Your task to perform on an android device: toggle translation in the chrome app Image 0: 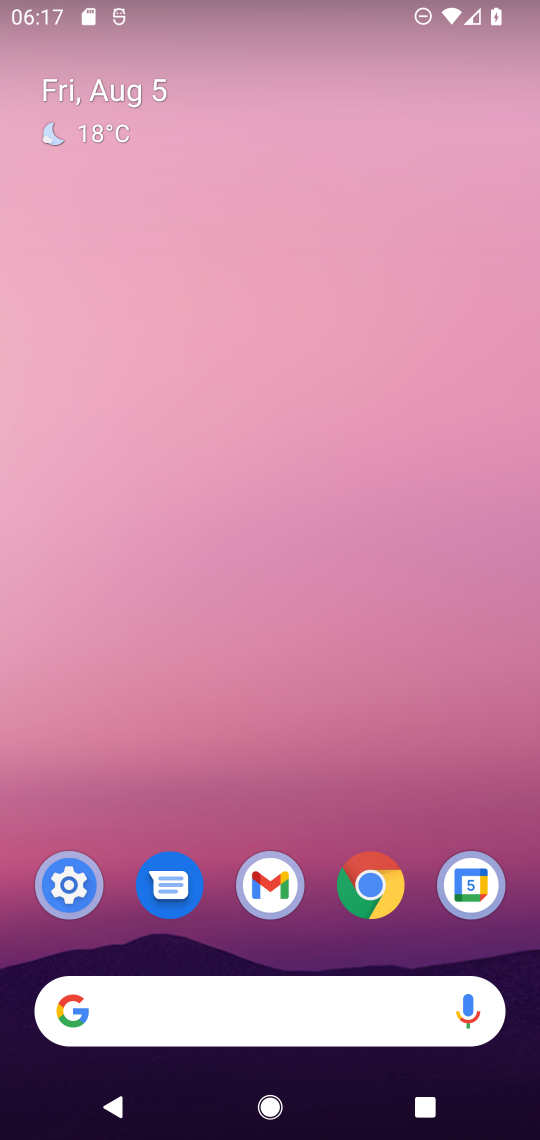
Step 0: click (381, 894)
Your task to perform on an android device: toggle translation in the chrome app Image 1: 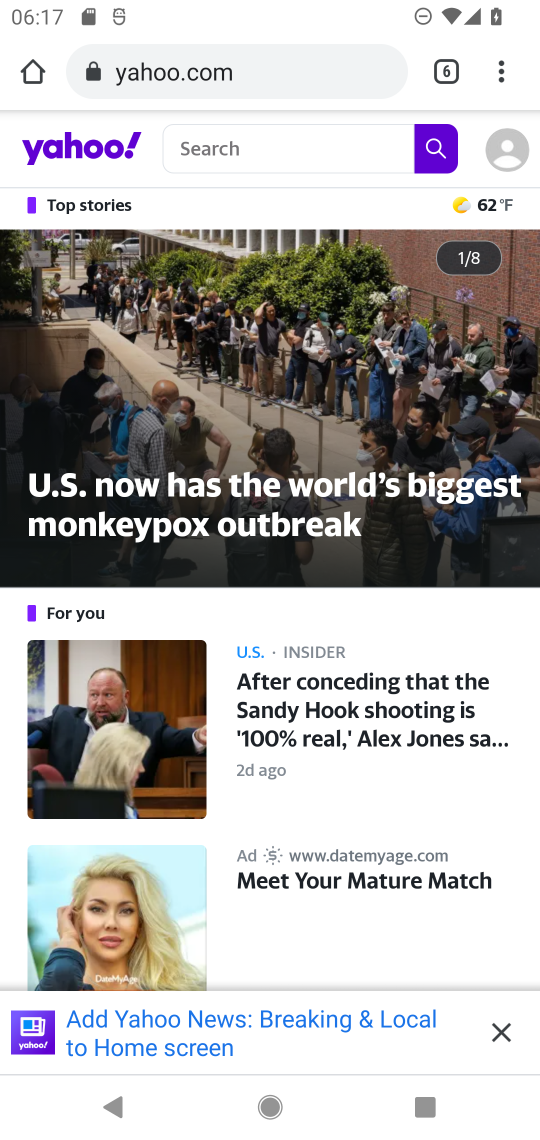
Step 1: click (501, 75)
Your task to perform on an android device: toggle translation in the chrome app Image 2: 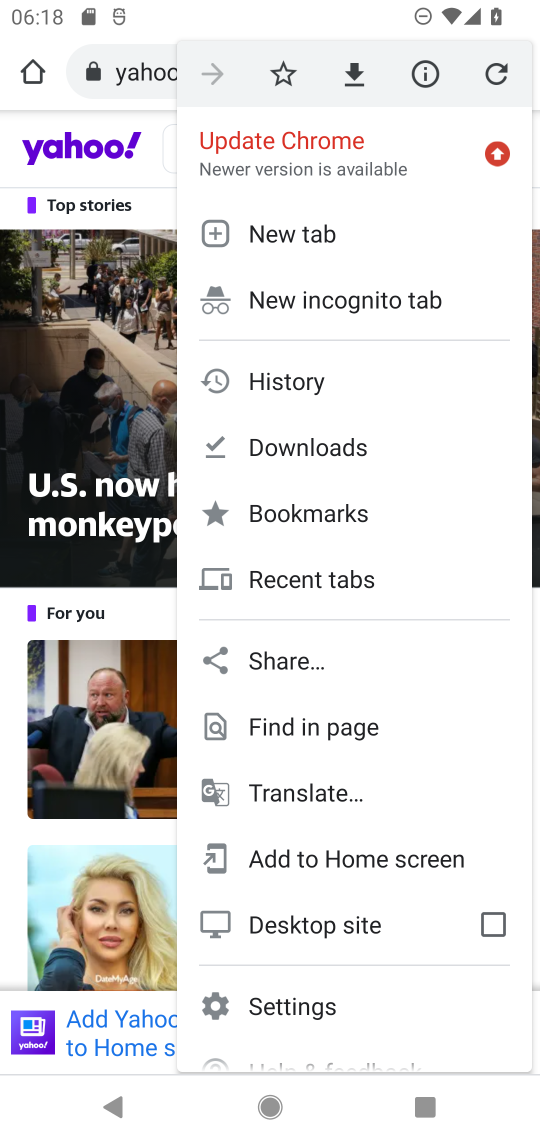
Step 2: click (274, 1003)
Your task to perform on an android device: toggle translation in the chrome app Image 3: 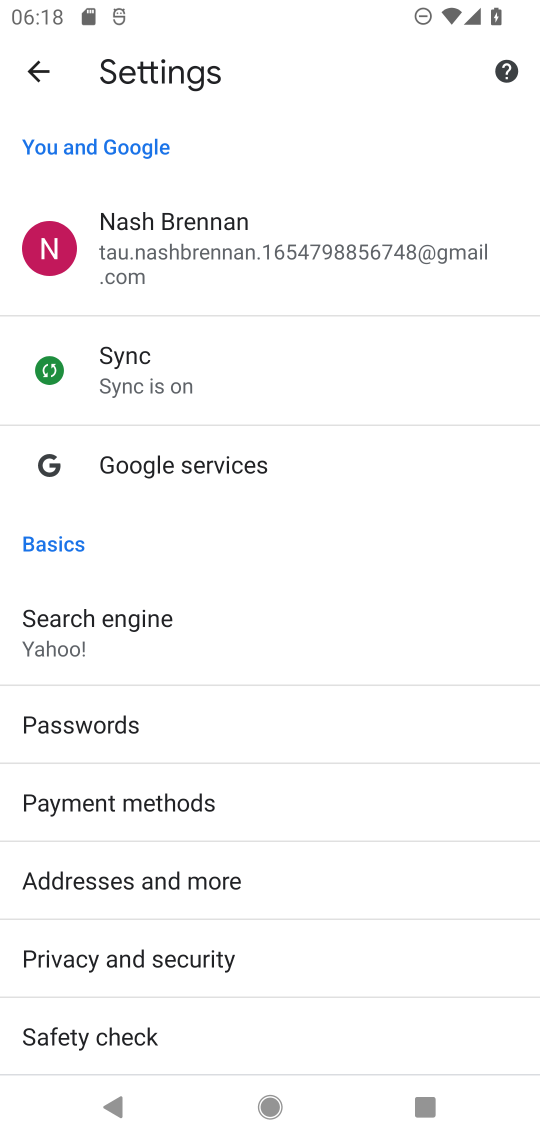
Step 3: drag from (107, 944) to (103, 526)
Your task to perform on an android device: toggle translation in the chrome app Image 4: 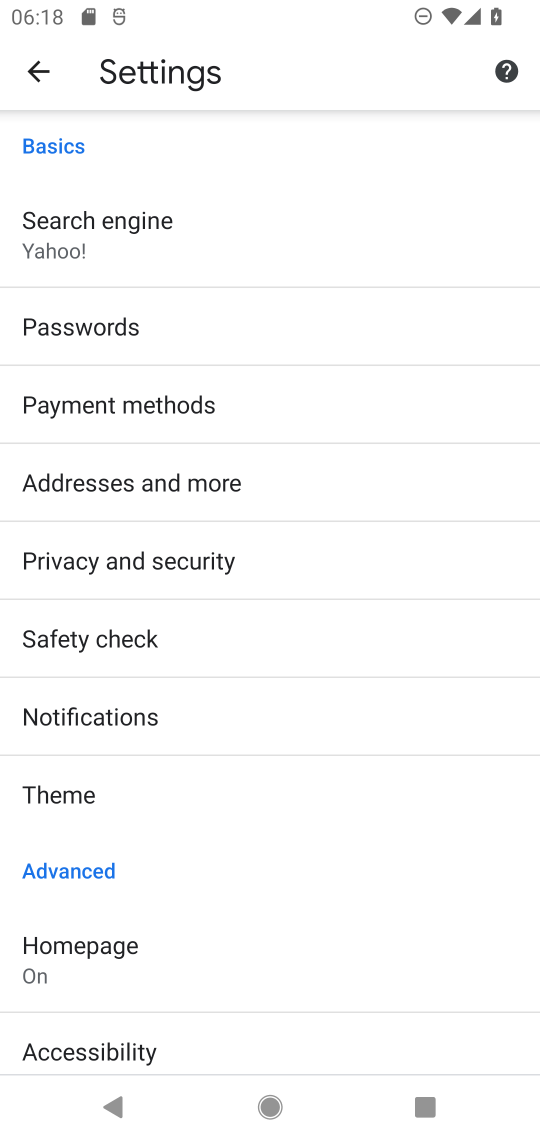
Step 4: drag from (121, 972) to (133, 576)
Your task to perform on an android device: toggle translation in the chrome app Image 5: 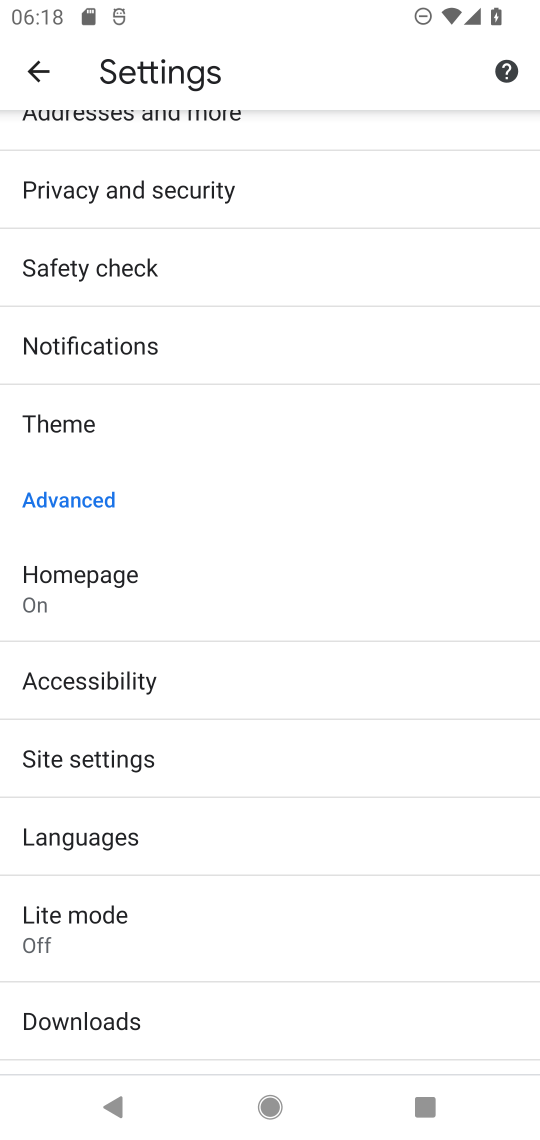
Step 5: click (72, 839)
Your task to perform on an android device: toggle translation in the chrome app Image 6: 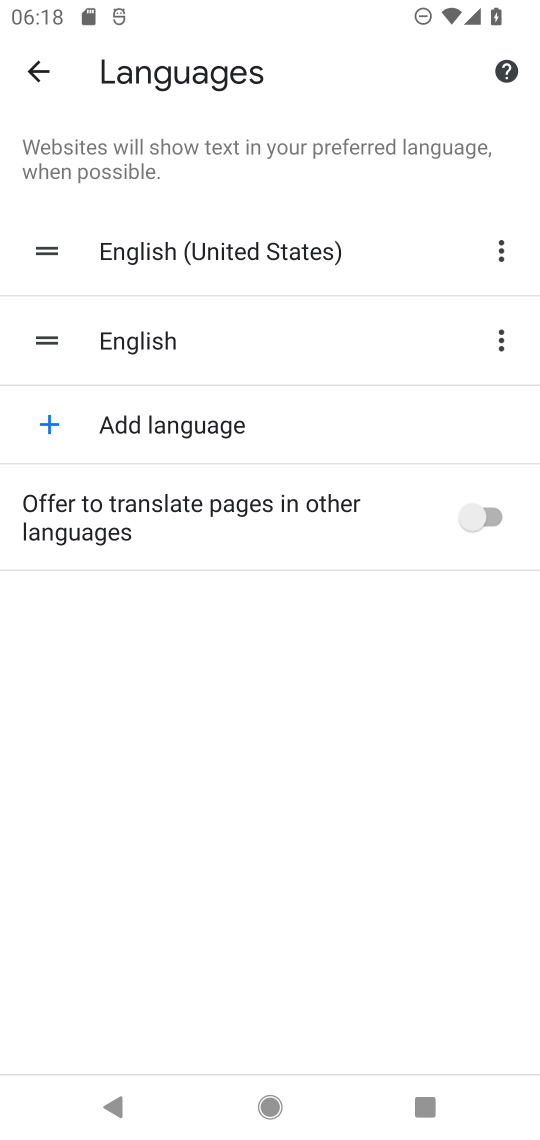
Step 6: click (490, 508)
Your task to perform on an android device: toggle translation in the chrome app Image 7: 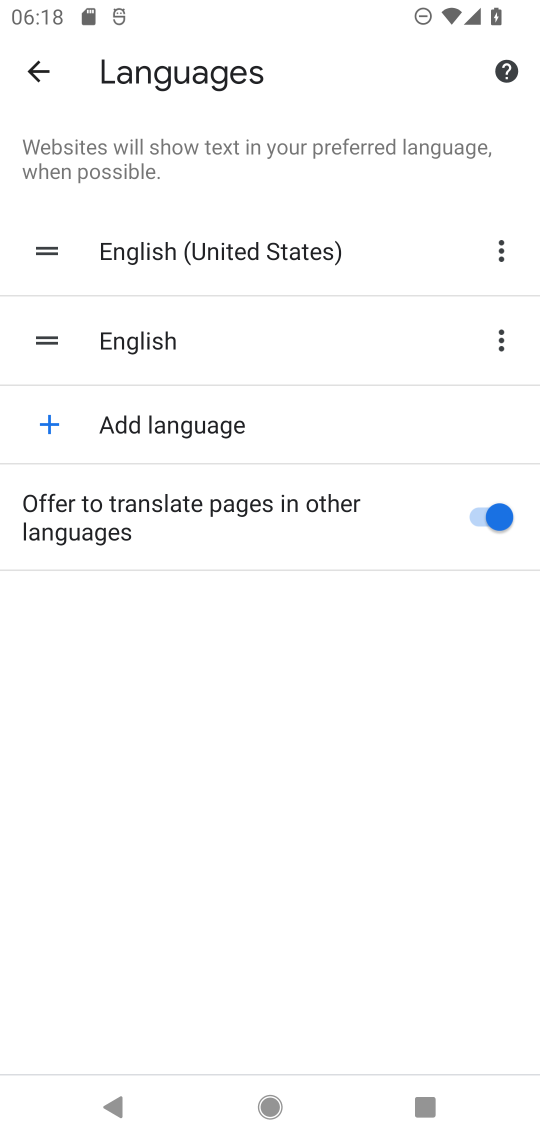
Step 7: task complete